Your task to perform on an android device: empty trash in the gmail app Image 0: 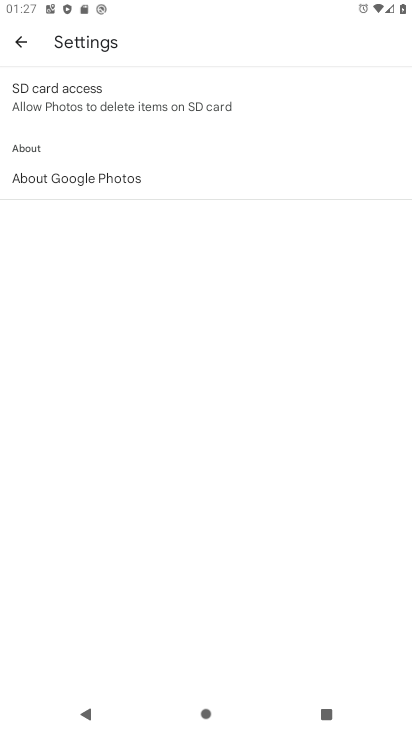
Step 0: press home button
Your task to perform on an android device: empty trash in the gmail app Image 1: 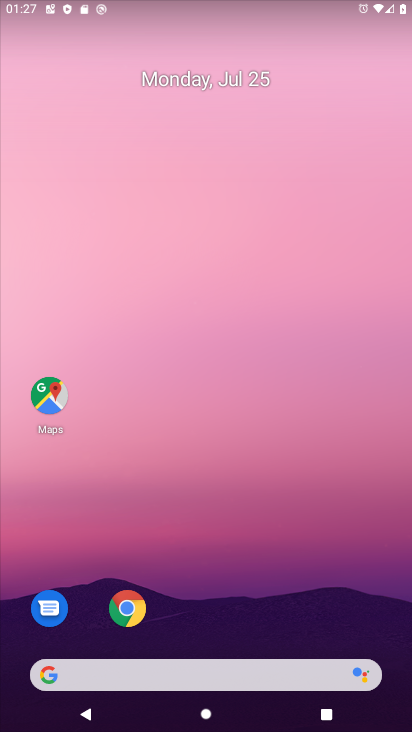
Step 1: drag from (203, 639) to (206, 66)
Your task to perform on an android device: empty trash in the gmail app Image 2: 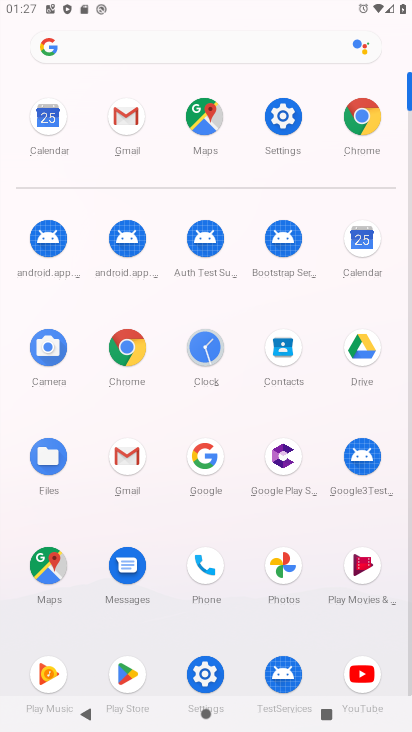
Step 2: click (131, 475)
Your task to perform on an android device: empty trash in the gmail app Image 3: 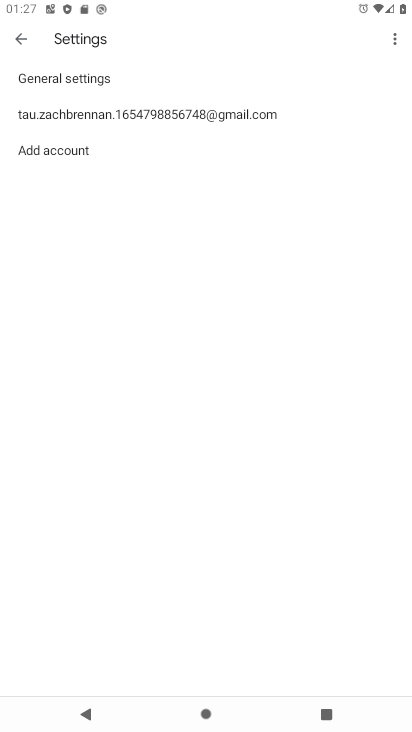
Step 3: click (29, 41)
Your task to perform on an android device: empty trash in the gmail app Image 4: 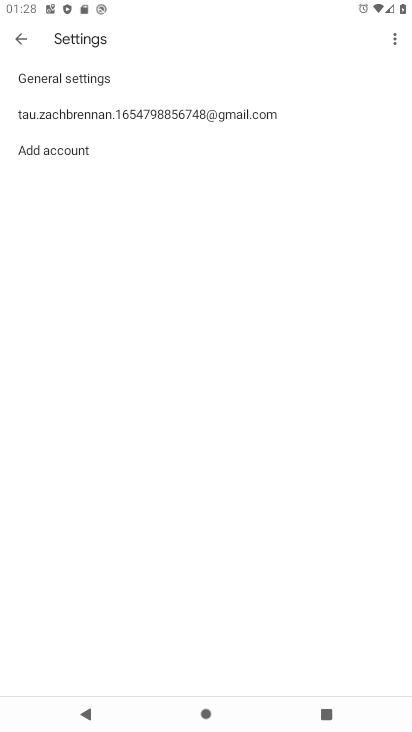
Step 4: click (20, 36)
Your task to perform on an android device: empty trash in the gmail app Image 5: 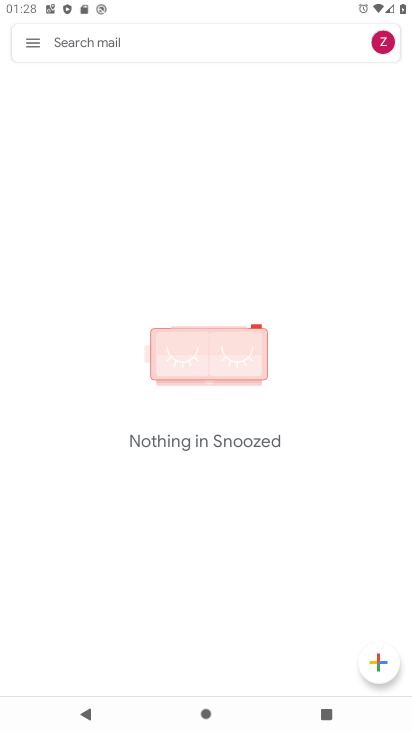
Step 5: drag from (34, 45) to (71, 349)
Your task to perform on an android device: empty trash in the gmail app Image 6: 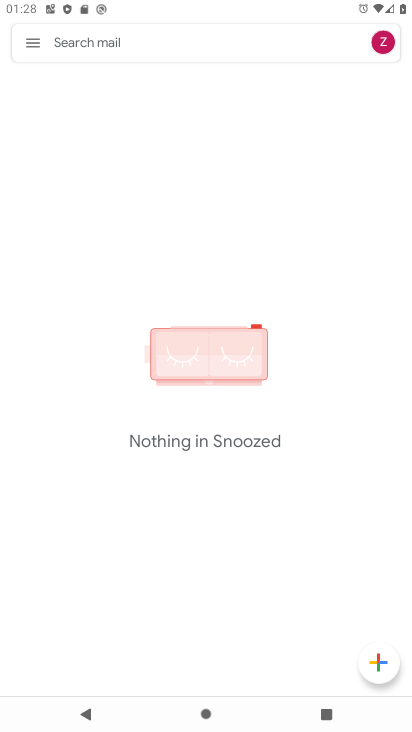
Step 6: drag from (36, 37) to (84, 428)
Your task to perform on an android device: empty trash in the gmail app Image 7: 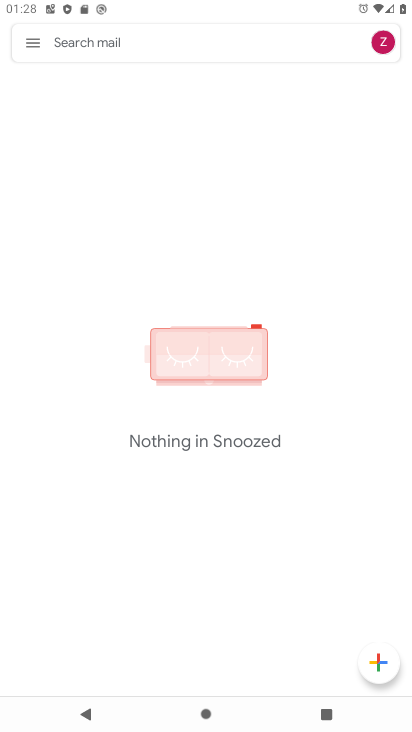
Step 7: drag from (36, 48) to (27, 234)
Your task to perform on an android device: empty trash in the gmail app Image 8: 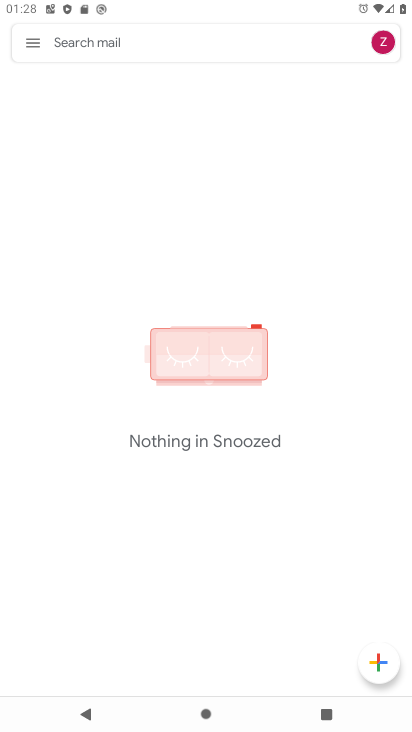
Step 8: click (25, 43)
Your task to perform on an android device: empty trash in the gmail app Image 9: 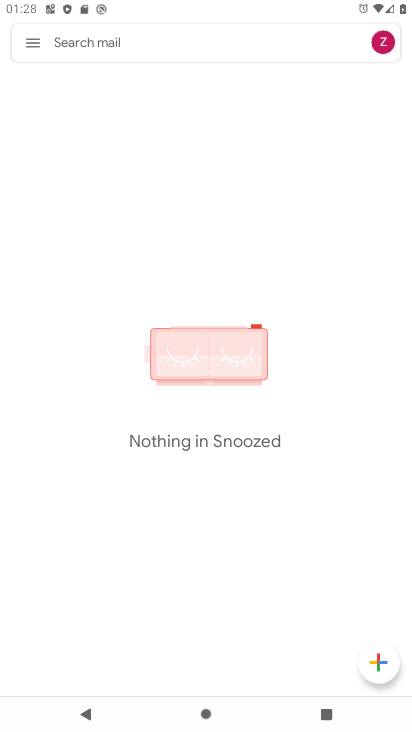
Step 9: click (30, 47)
Your task to perform on an android device: empty trash in the gmail app Image 10: 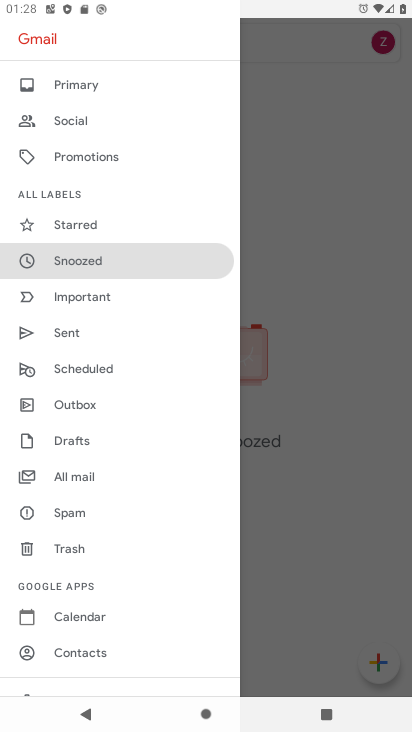
Step 10: click (64, 546)
Your task to perform on an android device: empty trash in the gmail app Image 11: 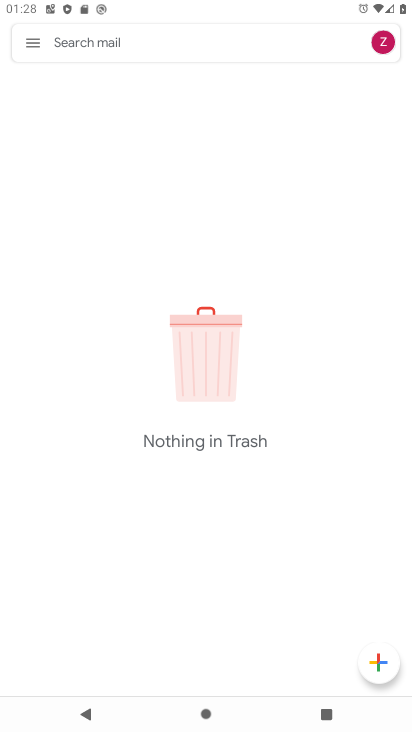
Step 11: task complete